Your task to perform on an android device: toggle javascript in the chrome app Image 0: 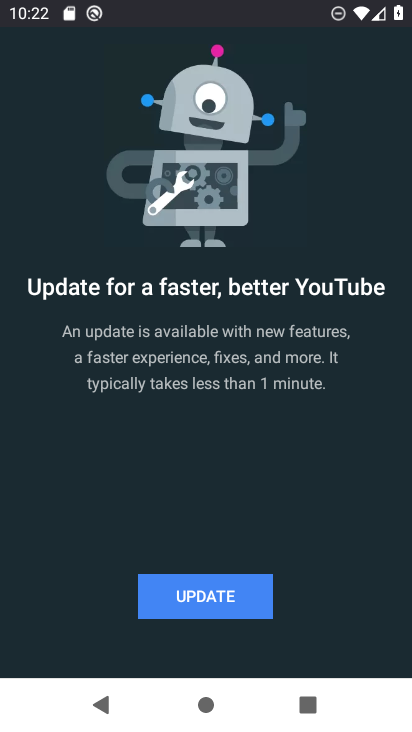
Step 0: press home button
Your task to perform on an android device: toggle javascript in the chrome app Image 1: 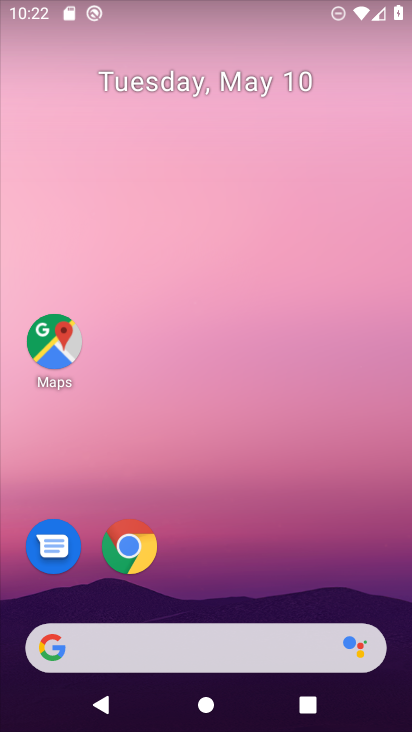
Step 1: drag from (288, 562) to (336, 97)
Your task to perform on an android device: toggle javascript in the chrome app Image 2: 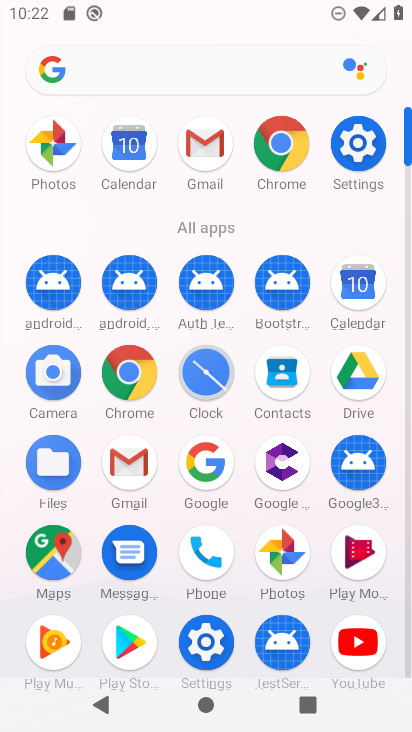
Step 2: click (372, 156)
Your task to perform on an android device: toggle javascript in the chrome app Image 3: 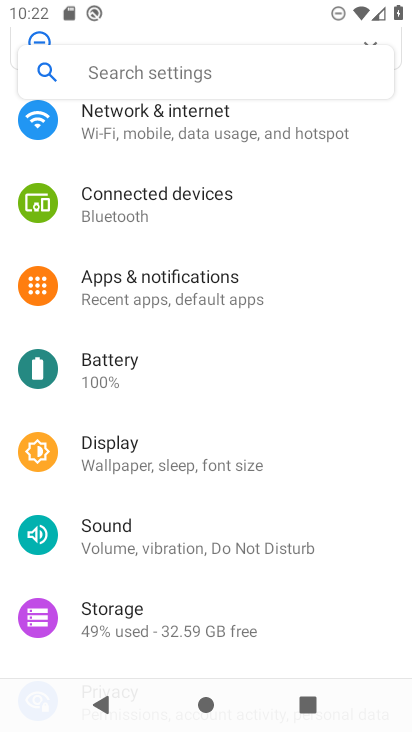
Step 3: click (185, 296)
Your task to perform on an android device: toggle javascript in the chrome app Image 4: 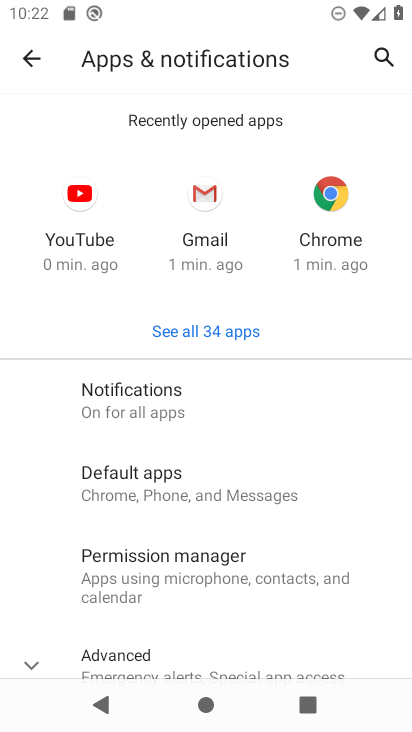
Step 4: click (329, 203)
Your task to perform on an android device: toggle javascript in the chrome app Image 5: 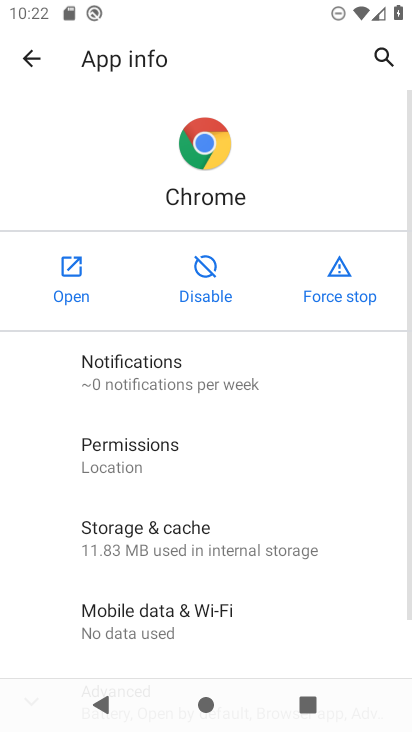
Step 5: click (70, 271)
Your task to perform on an android device: toggle javascript in the chrome app Image 6: 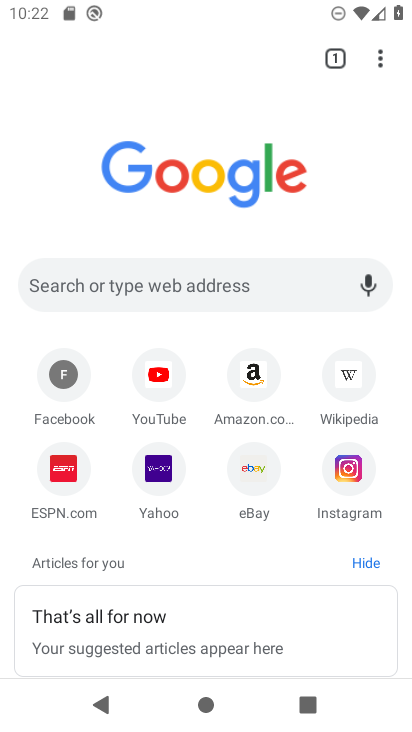
Step 6: drag from (385, 44) to (182, 495)
Your task to perform on an android device: toggle javascript in the chrome app Image 7: 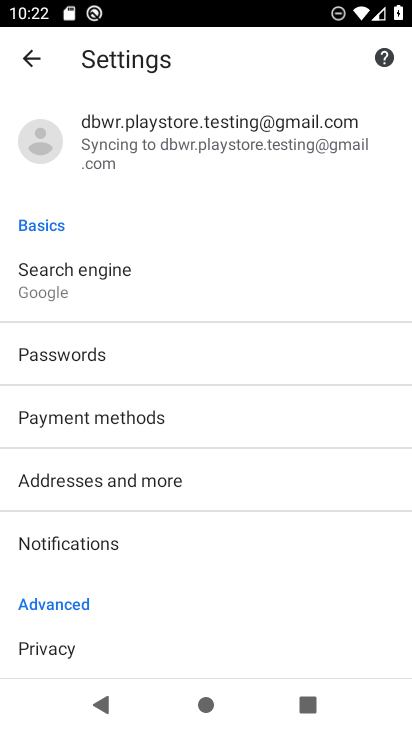
Step 7: drag from (120, 618) to (252, 262)
Your task to perform on an android device: toggle javascript in the chrome app Image 8: 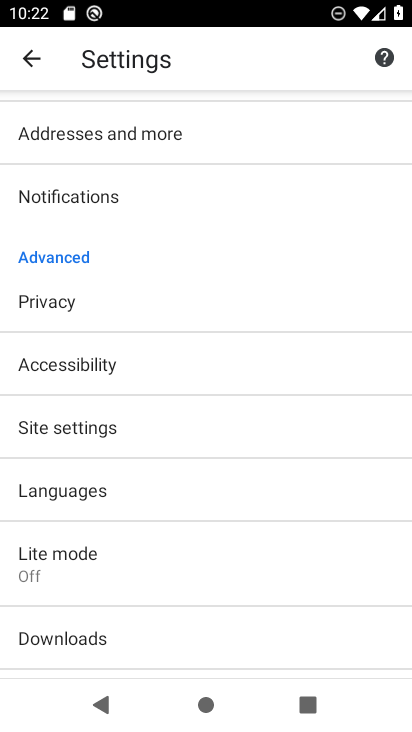
Step 8: click (75, 438)
Your task to perform on an android device: toggle javascript in the chrome app Image 9: 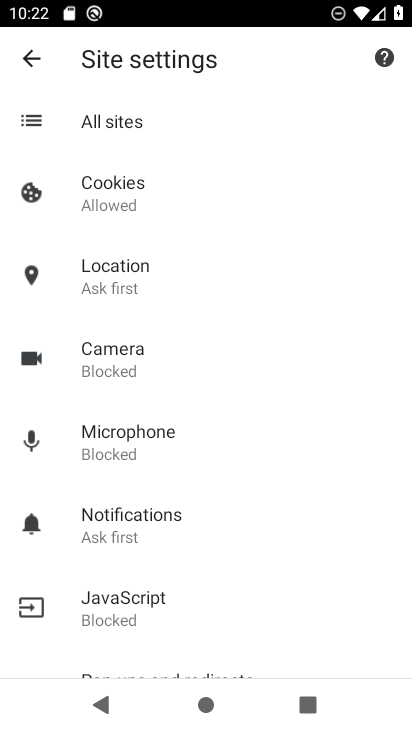
Step 9: click (120, 596)
Your task to perform on an android device: toggle javascript in the chrome app Image 10: 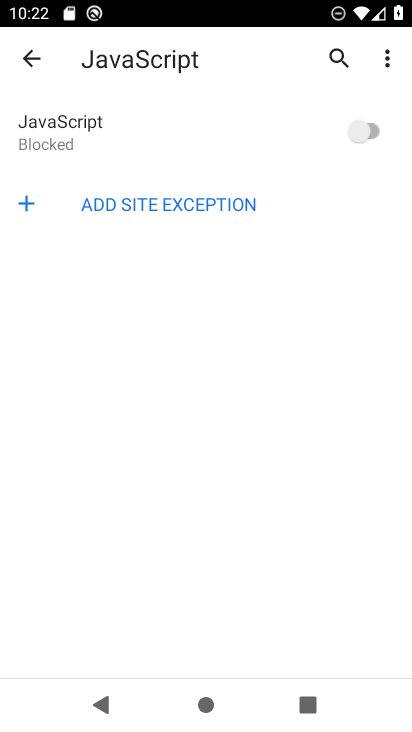
Step 10: click (346, 141)
Your task to perform on an android device: toggle javascript in the chrome app Image 11: 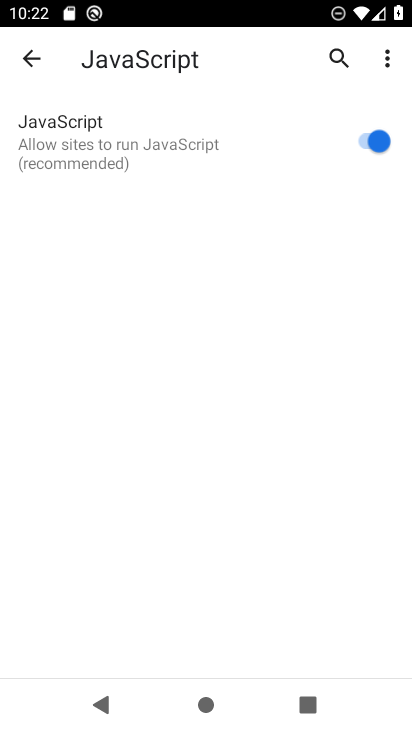
Step 11: task complete